Your task to perform on an android device: empty trash in the gmail app Image 0: 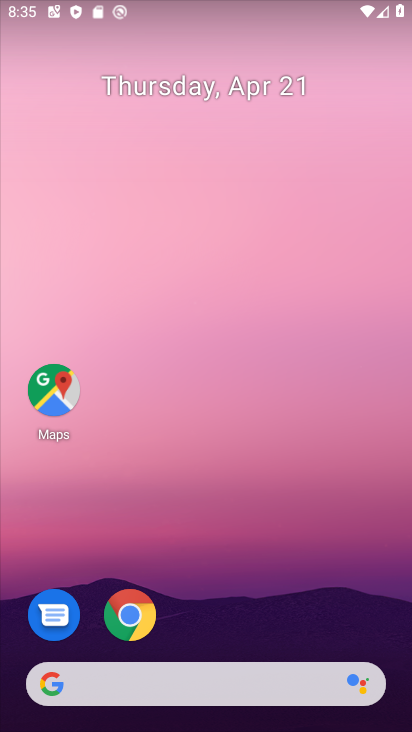
Step 0: drag from (242, 596) to (220, 19)
Your task to perform on an android device: empty trash in the gmail app Image 1: 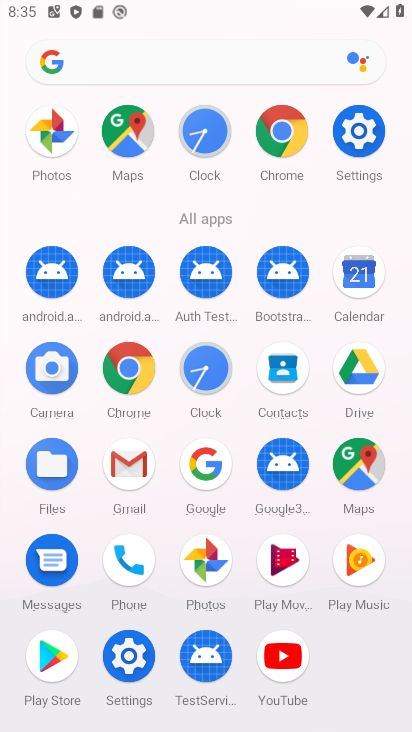
Step 1: click (129, 458)
Your task to perform on an android device: empty trash in the gmail app Image 2: 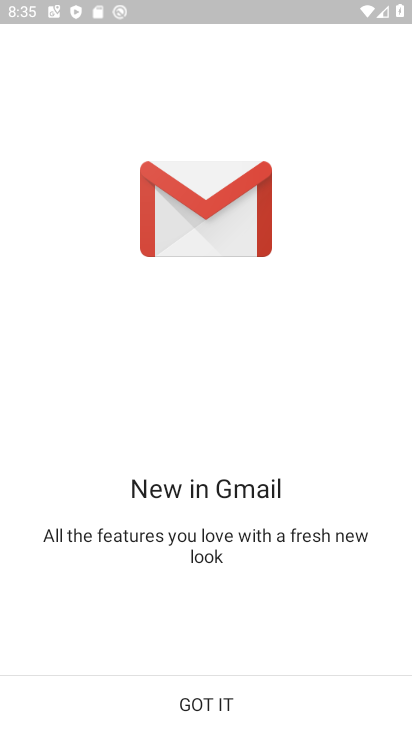
Step 2: click (210, 690)
Your task to perform on an android device: empty trash in the gmail app Image 3: 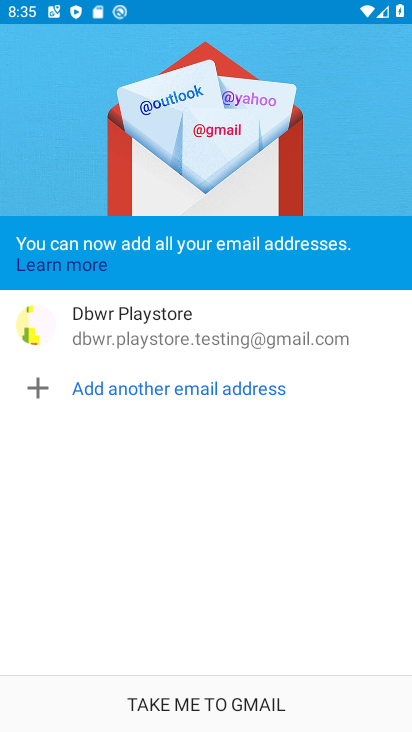
Step 3: click (201, 699)
Your task to perform on an android device: empty trash in the gmail app Image 4: 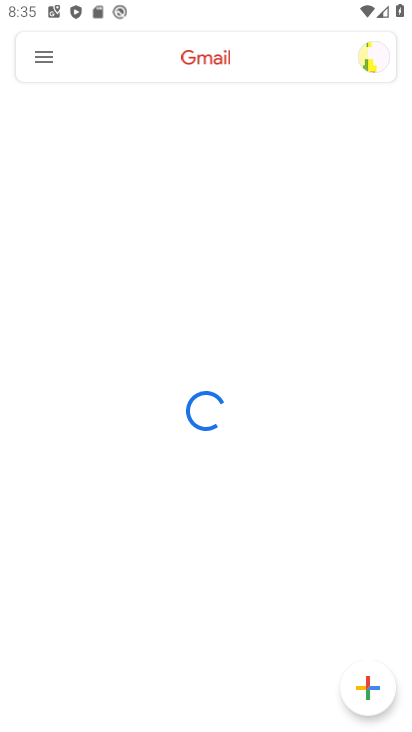
Step 4: click (41, 54)
Your task to perform on an android device: empty trash in the gmail app Image 5: 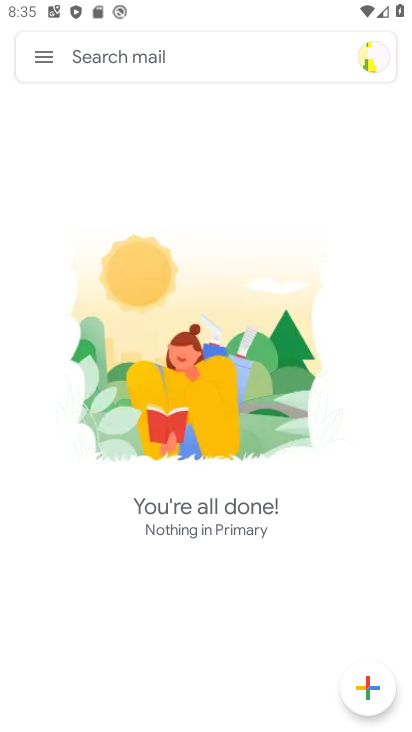
Step 5: click (42, 59)
Your task to perform on an android device: empty trash in the gmail app Image 6: 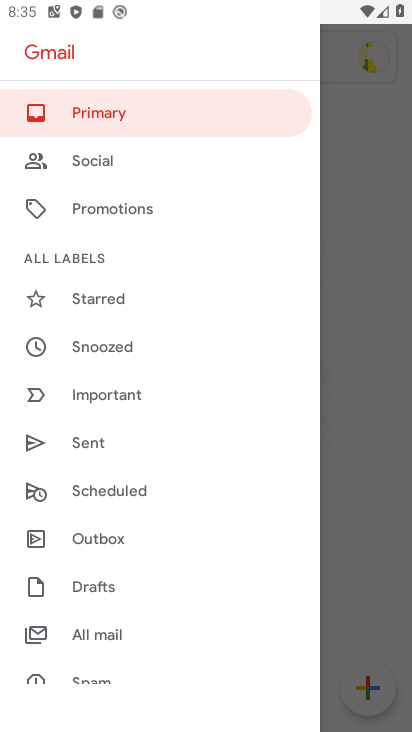
Step 6: drag from (133, 543) to (117, 138)
Your task to perform on an android device: empty trash in the gmail app Image 7: 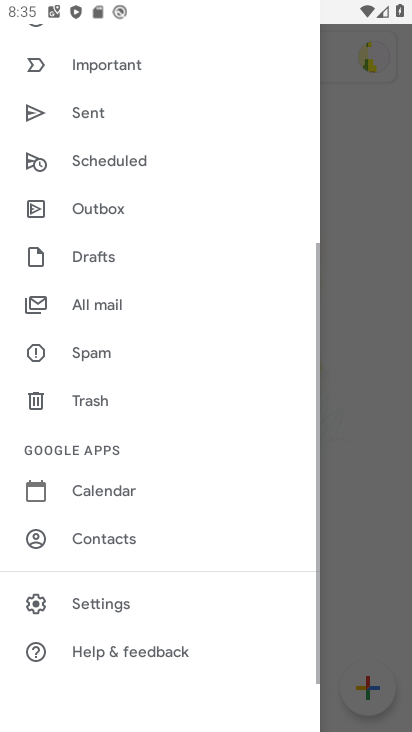
Step 7: click (97, 397)
Your task to perform on an android device: empty trash in the gmail app Image 8: 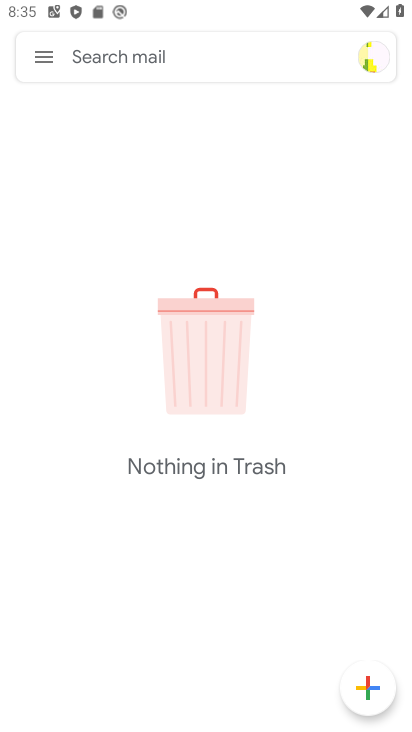
Step 8: task complete